Your task to perform on an android device: add a label to a message in the gmail app Image 0: 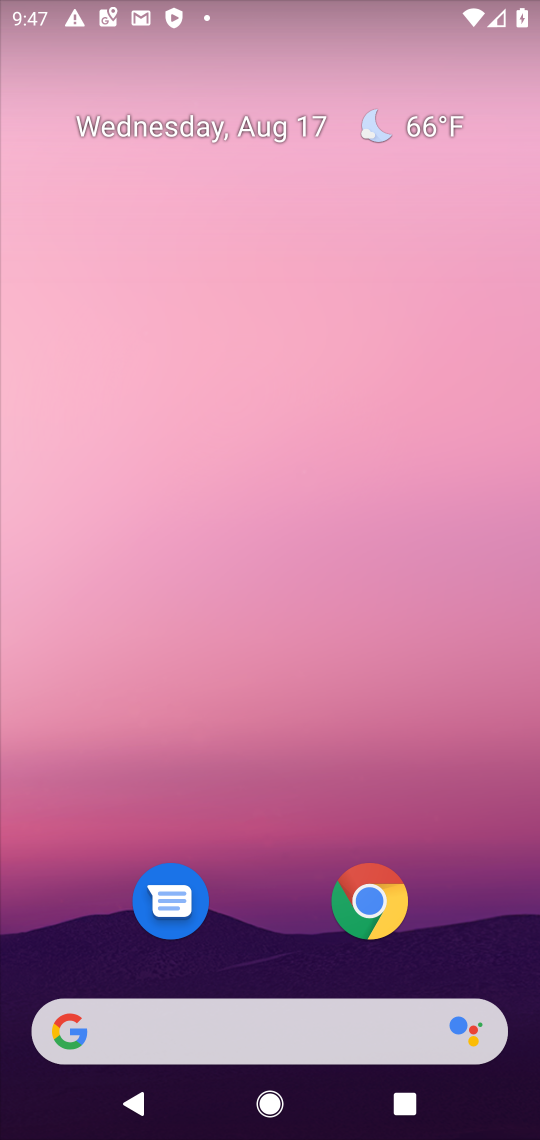
Step 0: drag from (258, 918) to (289, 185)
Your task to perform on an android device: add a label to a message in the gmail app Image 1: 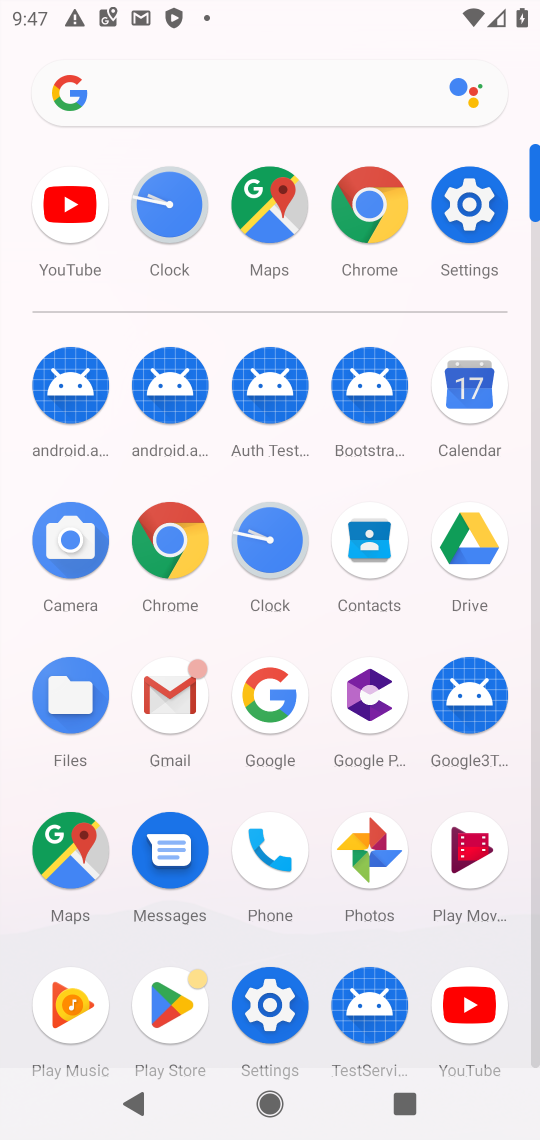
Step 1: click (182, 694)
Your task to perform on an android device: add a label to a message in the gmail app Image 2: 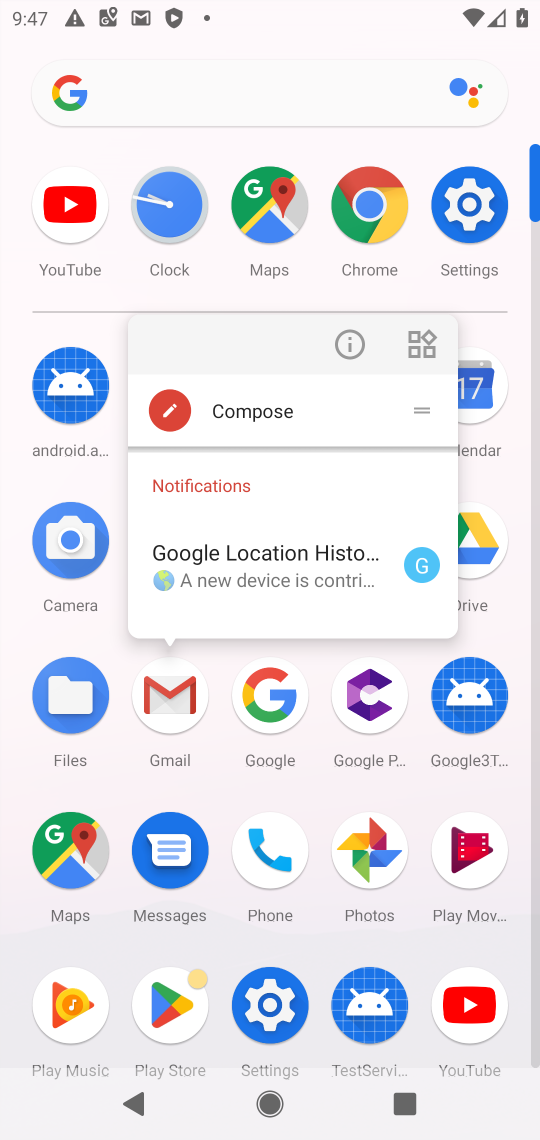
Step 2: click (182, 694)
Your task to perform on an android device: add a label to a message in the gmail app Image 3: 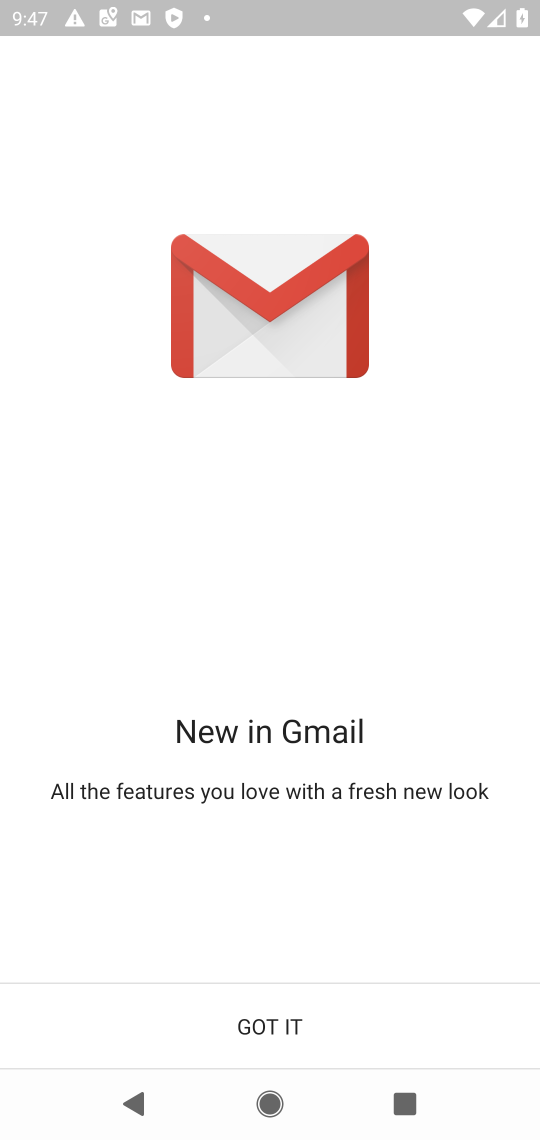
Step 3: click (286, 1017)
Your task to perform on an android device: add a label to a message in the gmail app Image 4: 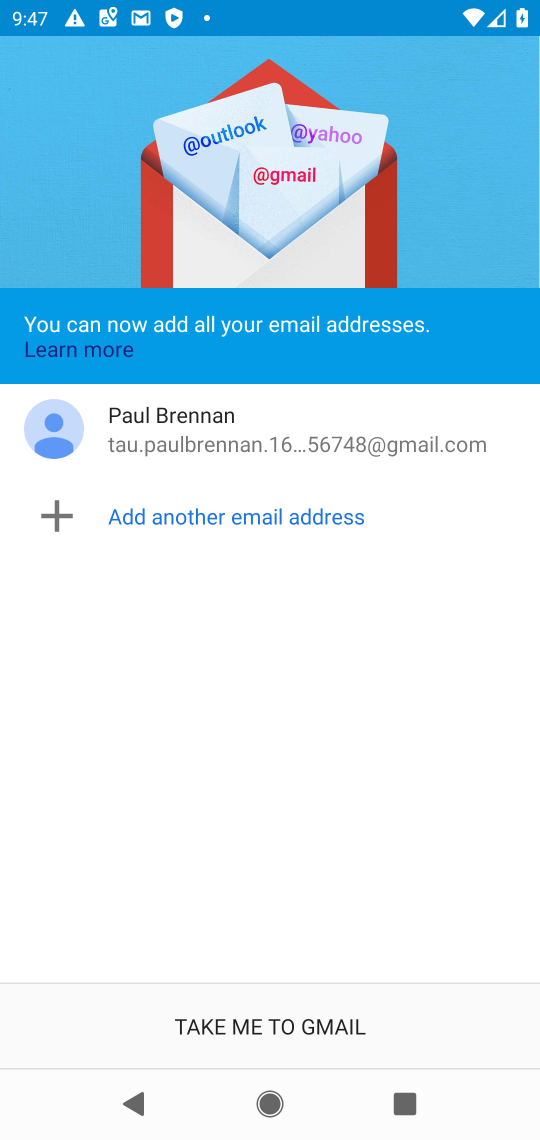
Step 4: click (286, 1017)
Your task to perform on an android device: add a label to a message in the gmail app Image 5: 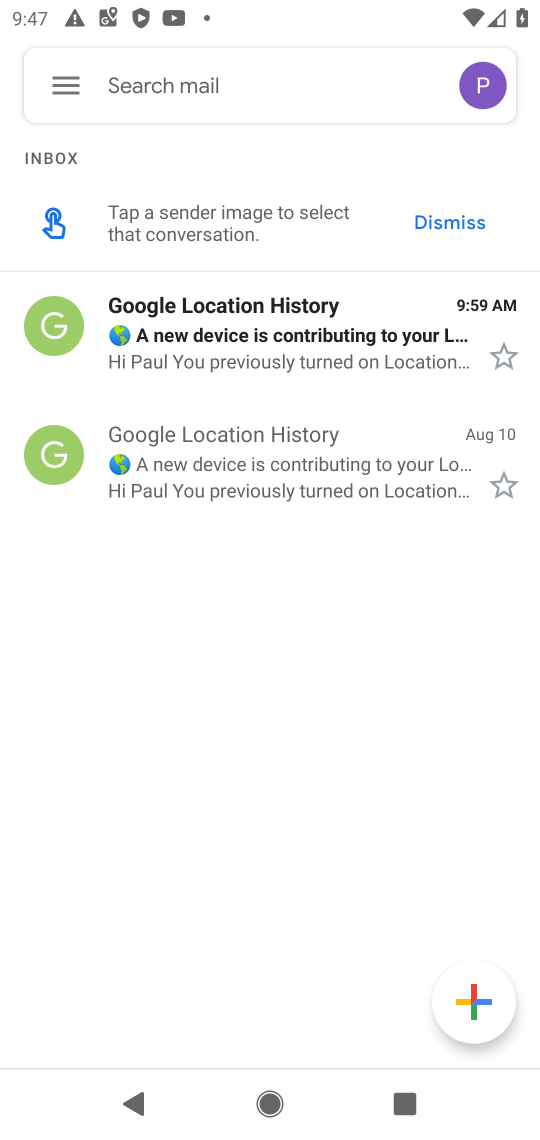
Step 5: click (226, 448)
Your task to perform on an android device: add a label to a message in the gmail app Image 6: 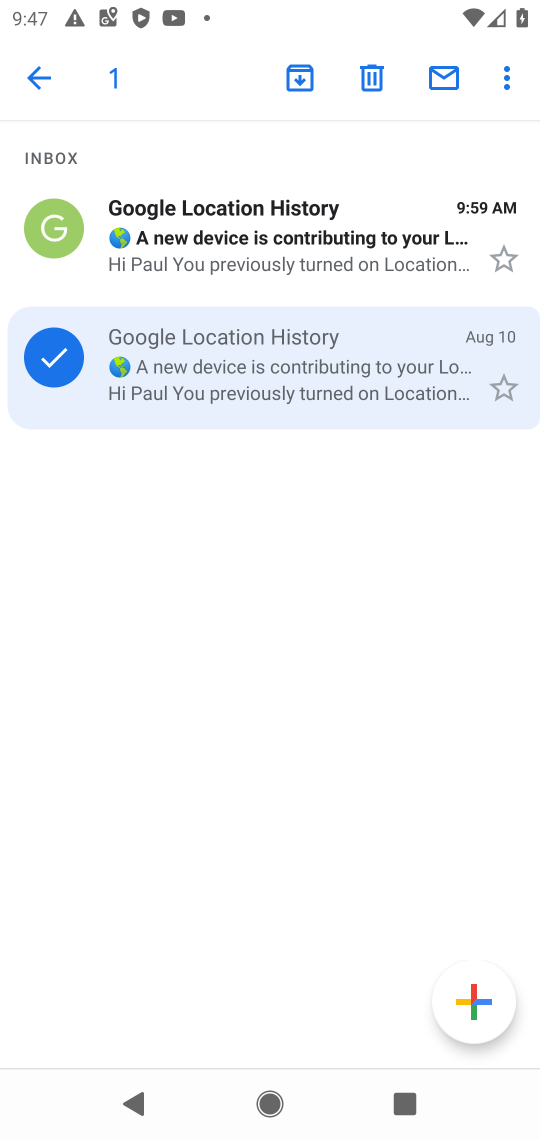
Step 6: click (493, 62)
Your task to perform on an android device: add a label to a message in the gmail app Image 7: 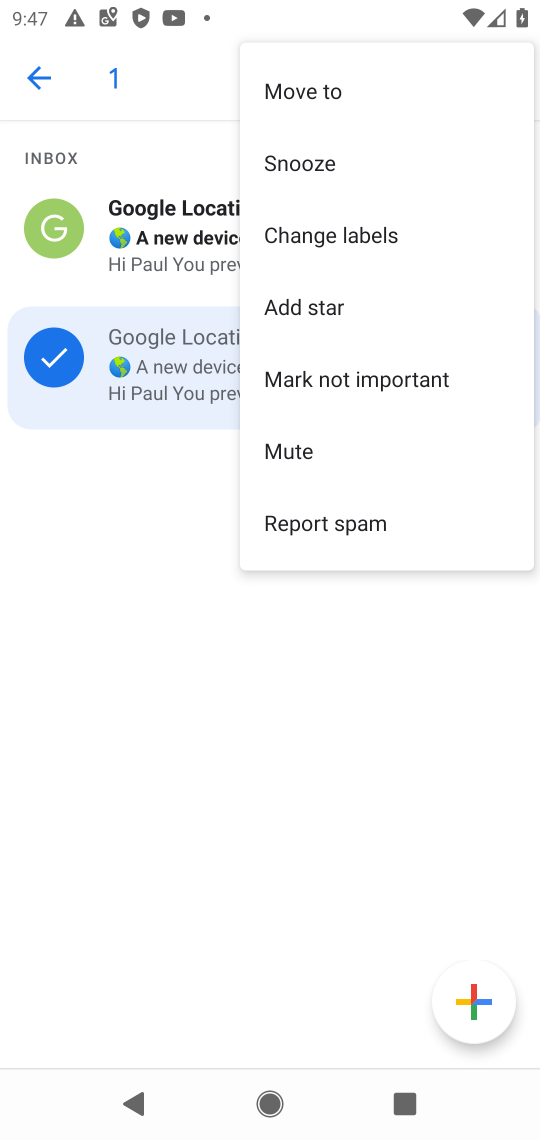
Step 7: task complete